Your task to perform on an android device: Go to notification settings Image 0: 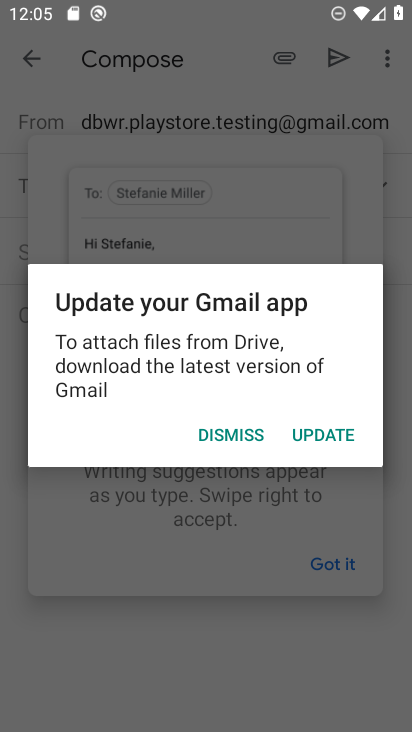
Step 0: press home button
Your task to perform on an android device: Go to notification settings Image 1: 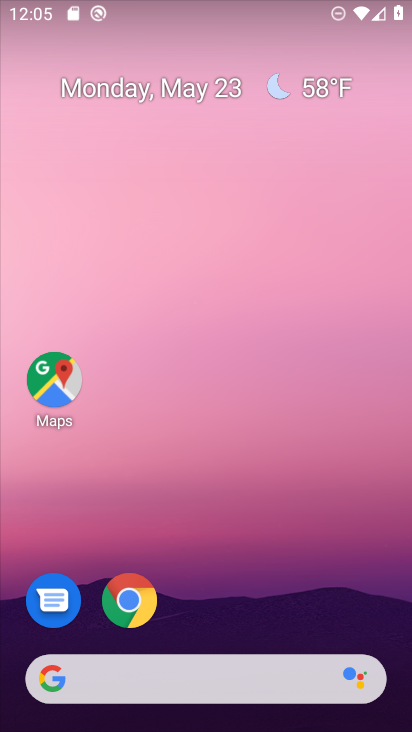
Step 1: drag from (343, 507) to (397, 70)
Your task to perform on an android device: Go to notification settings Image 2: 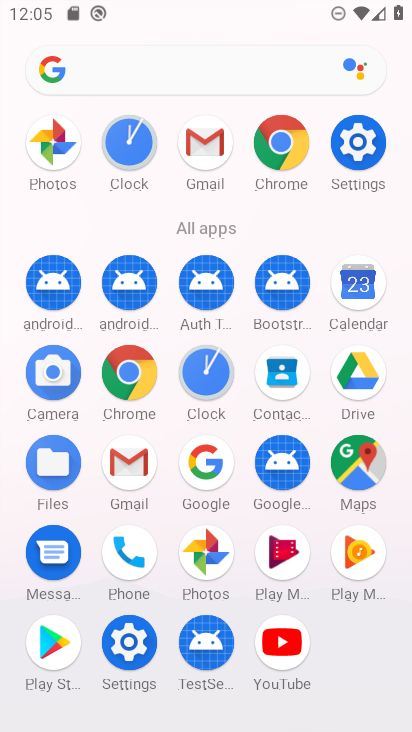
Step 2: click (380, 158)
Your task to perform on an android device: Go to notification settings Image 3: 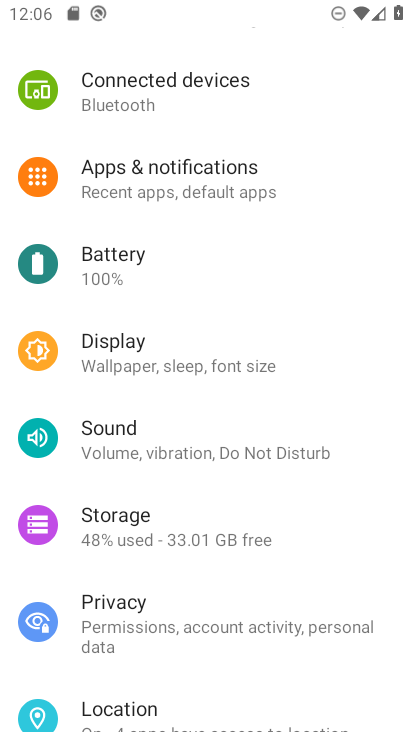
Step 3: click (189, 164)
Your task to perform on an android device: Go to notification settings Image 4: 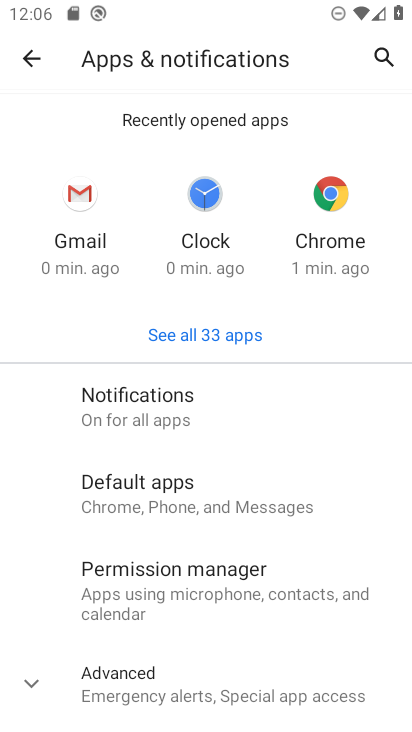
Step 4: click (141, 390)
Your task to perform on an android device: Go to notification settings Image 5: 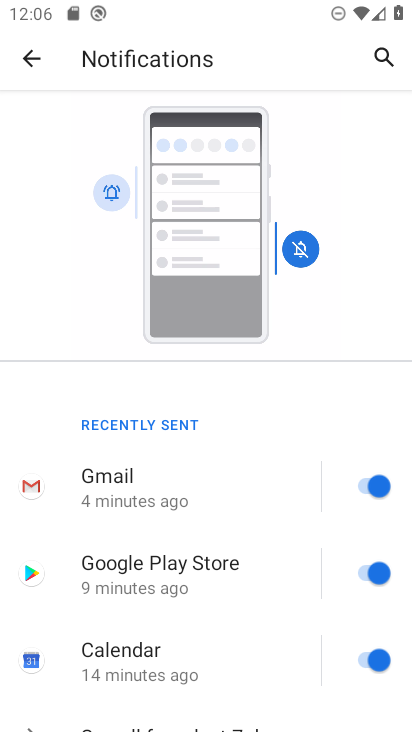
Step 5: task complete